Your task to perform on an android device: toggle improve location accuracy Image 0: 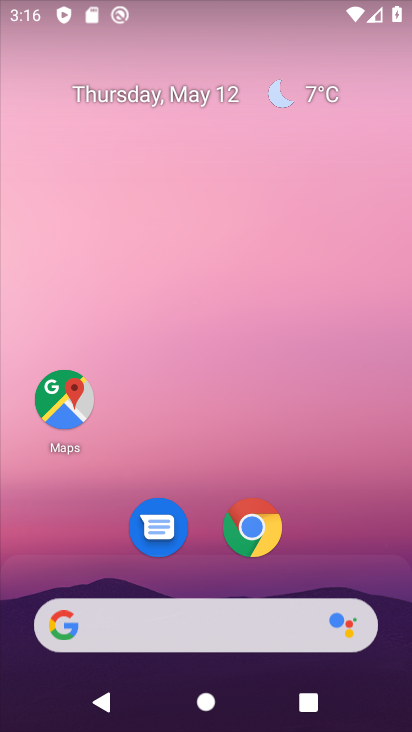
Step 0: drag from (223, 592) to (205, 25)
Your task to perform on an android device: toggle improve location accuracy Image 1: 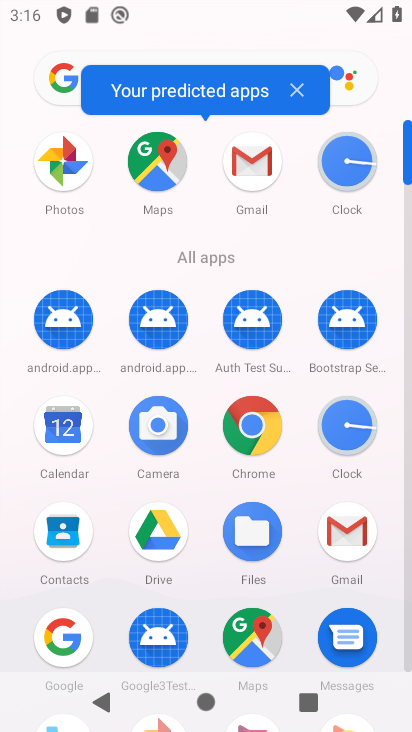
Step 1: drag from (215, 597) to (174, 13)
Your task to perform on an android device: toggle improve location accuracy Image 2: 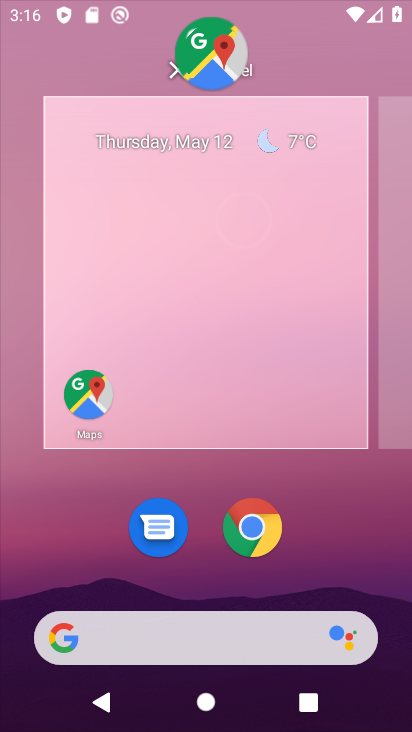
Step 2: drag from (208, 608) to (94, 37)
Your task to perform on an android device: toggle improve location accuracy Image 3: 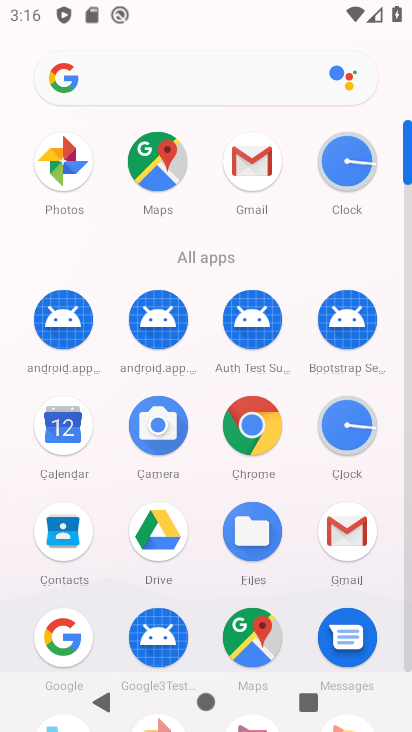
Step 3: drag from (195, 605) to (140, 39)
Your task to perform on an android device: toggle improve location accuracy Image 4: 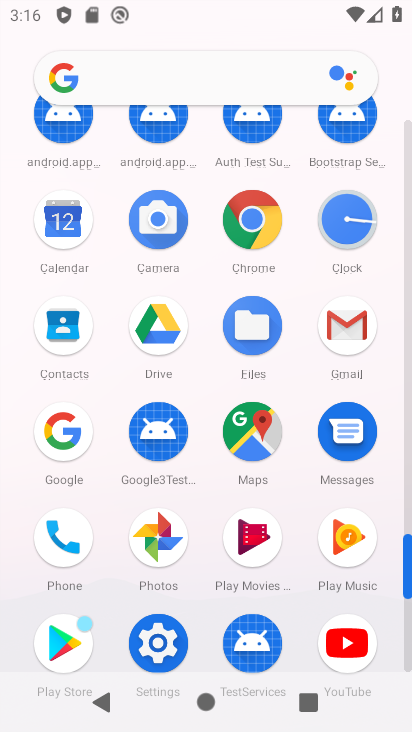
Step 4: click (163, 632)
Your task to perform on an android device: toggle improve location accuracy Image 5: 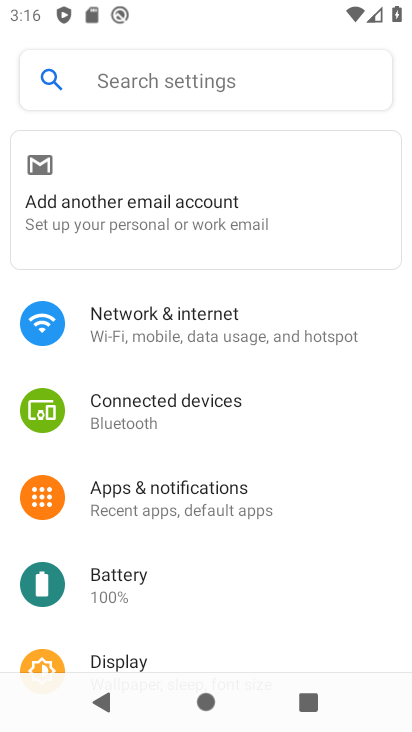
Step 5: drag from (203, 566) to (121, 43)
Your task to perform on an android device: toggle improve location accuracy Image 6: 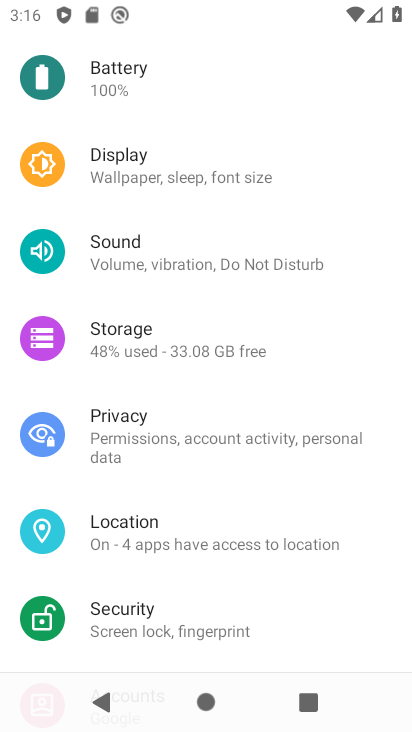
Step 6: click (122, 526)
Your task to perform on an android device: toggle improve location accuracy Image 7: 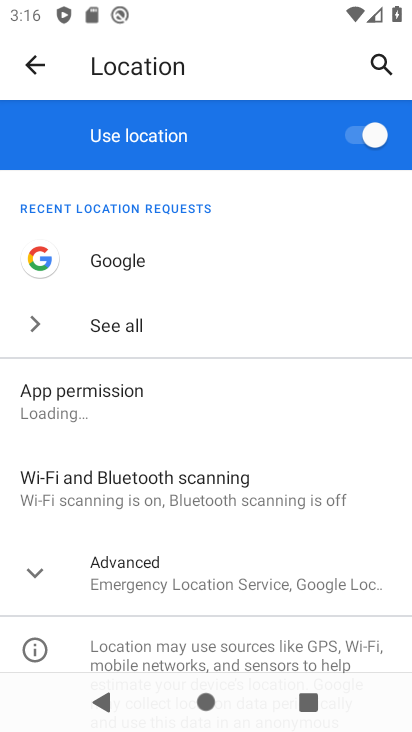
Step 7: click (152, 562)
Your task to perform on an android device: toggle improve location accuracy Image 8: 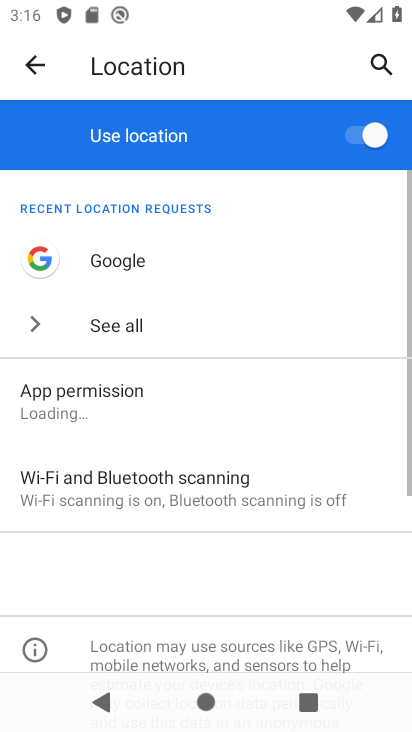
Step 8: drag from (152, 562) to (59, 60)
Your task to perform on an android device: toggle improve location accuracy Image 9: 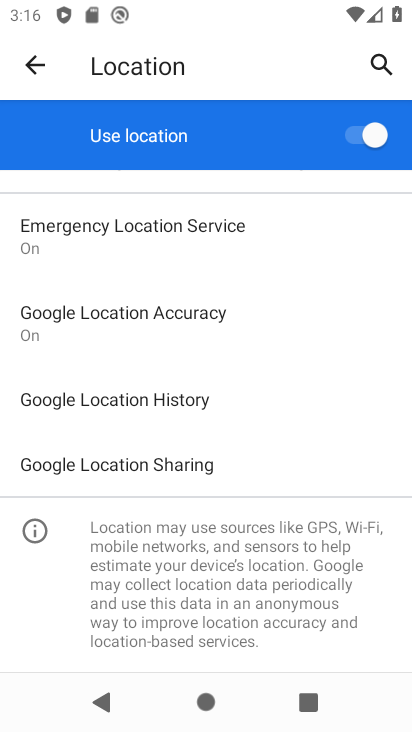
Step 9: click (138, 301)
Your task to perform on an android device: toggle improve location accuracy Image 10: 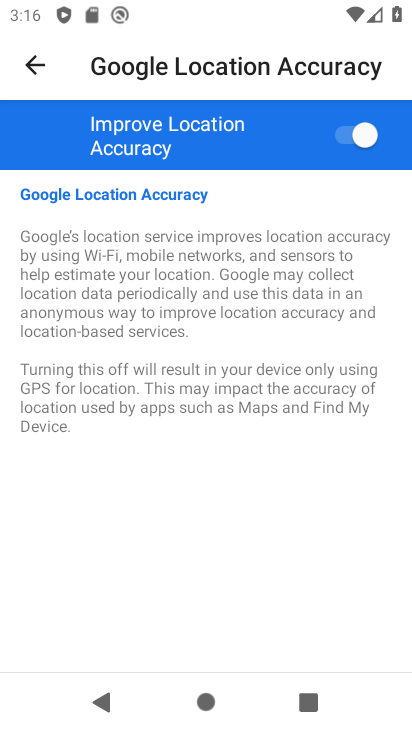
Step 10: click (370, 142)
Your task to perform on an android device: toggle improve location accuracy Image 11: 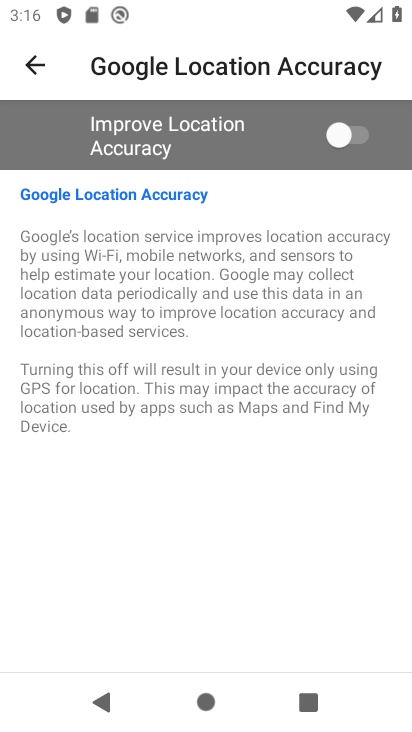
Step 11: task complete